Your task to perform on an android device: Open my contact list Image 0: 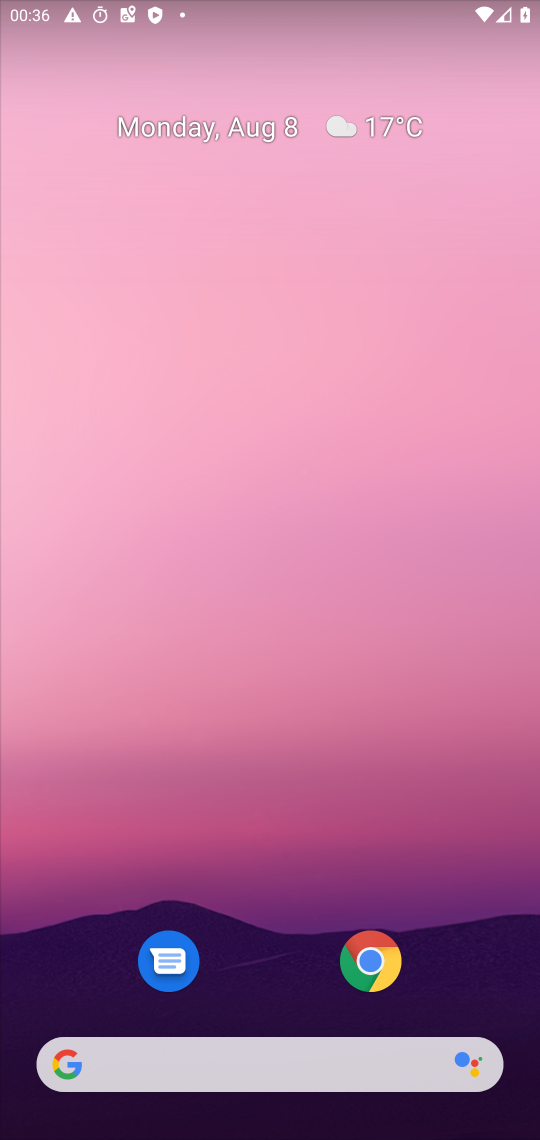
Step 0: drag from (380, 1083) to (325, 667)
Your task to perform on an android device: Open my contact list Image 1: 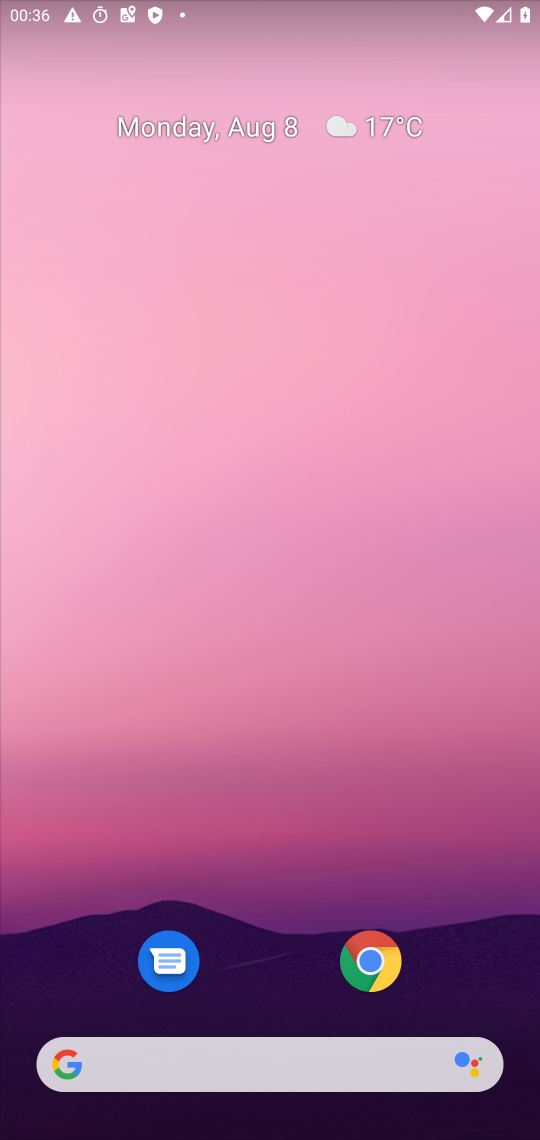
Step 1: drag from (261, 1052) to (305, 107)
Your task to perform on an android device: Open my contact list Image 2: 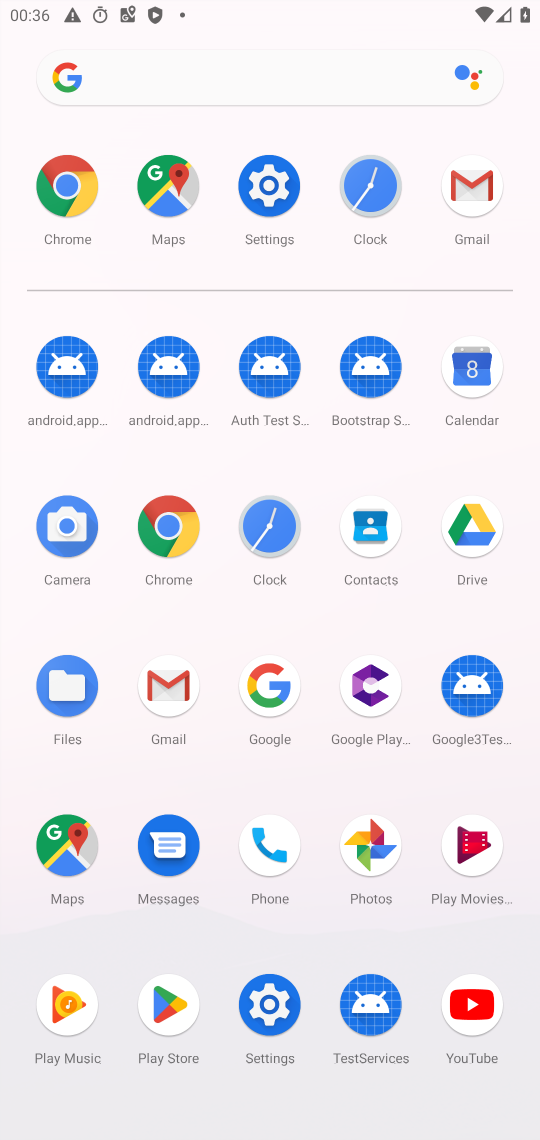
Step 2: click (369, 524)
Your task to perform on an android device: Open my contact list Image 3: 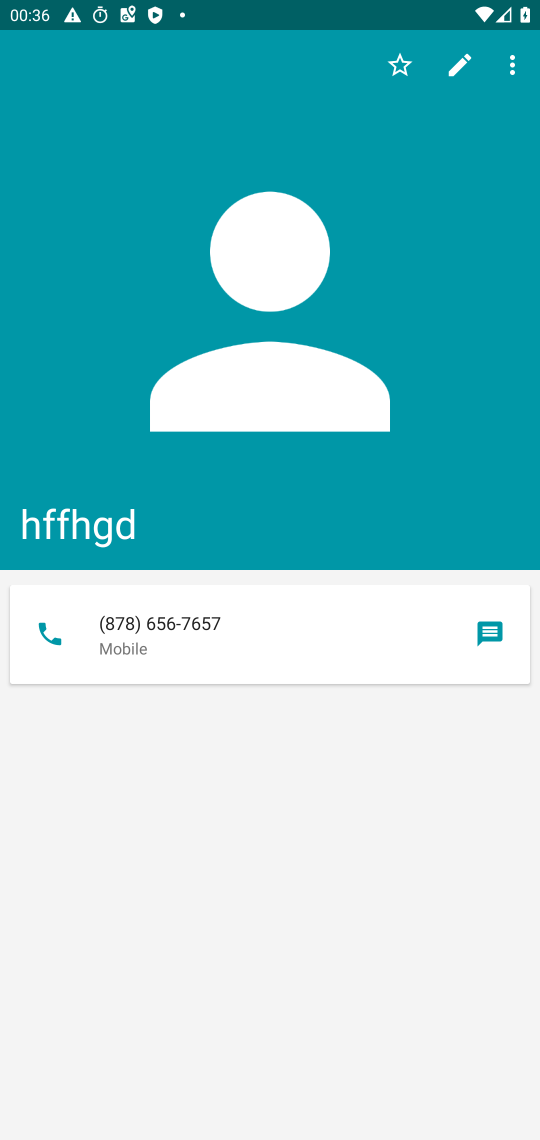
Step 3: task complete